Your task to perform on an android device: Open location settings Image 0: 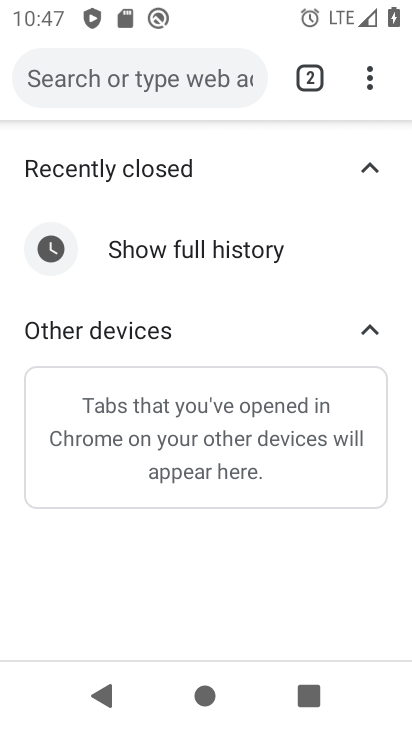
Step 0: press home button
Your task to perform on an android device: Open location settings Image 1: 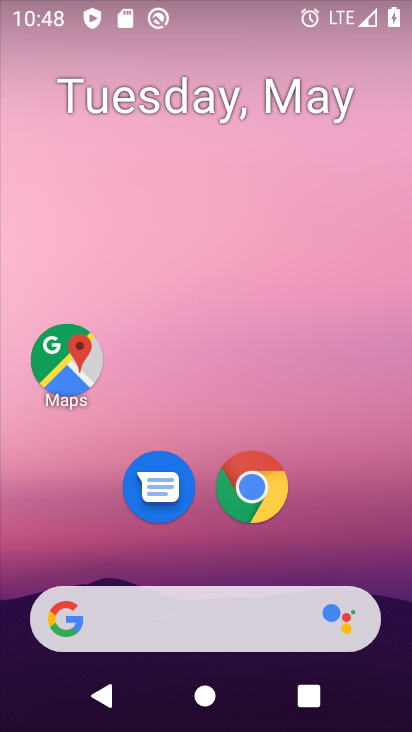
Step 1: drag from (199, 553) to (183, 11)
Your task to perform on an android device: Open location settings Image 2: 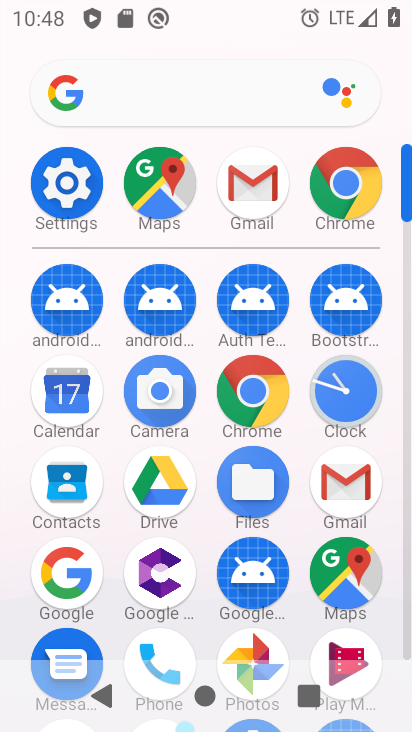
Step 2: click (76, 208)
Your task to perform on an android device: Open location settings Image 3: 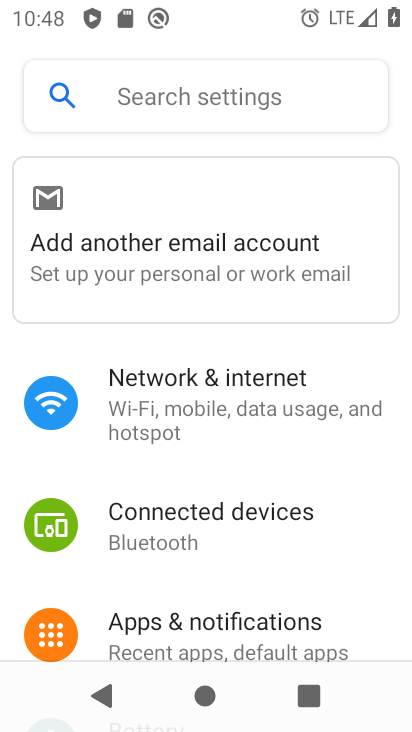
Step 3: drag from (246, 559) to (286, 72)
Your task to perform on an android device: Open location settings Image 4: 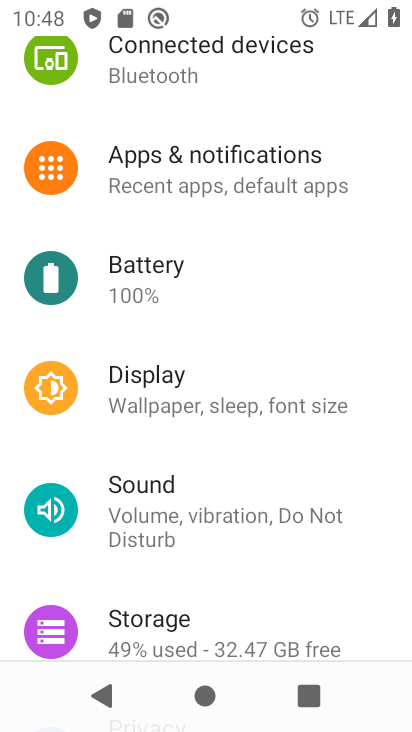
Step 4: drag from (203, 581) to (146, 31)
Your task to perform on an android device: Open location settings Image 5: 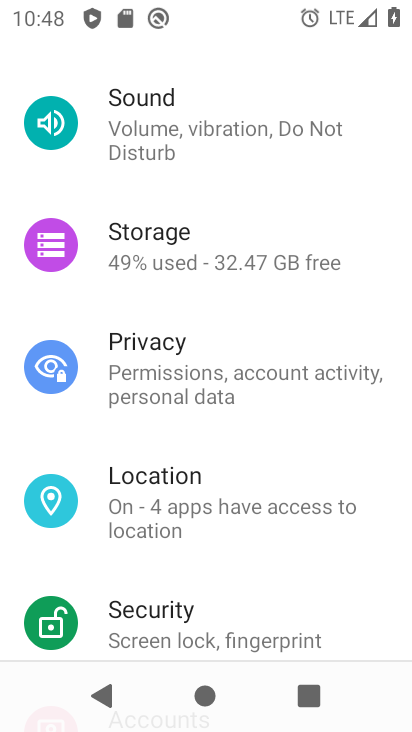
Step 5: click (206, 489)
Your task to perform on an android device: Open location settings Image 6: 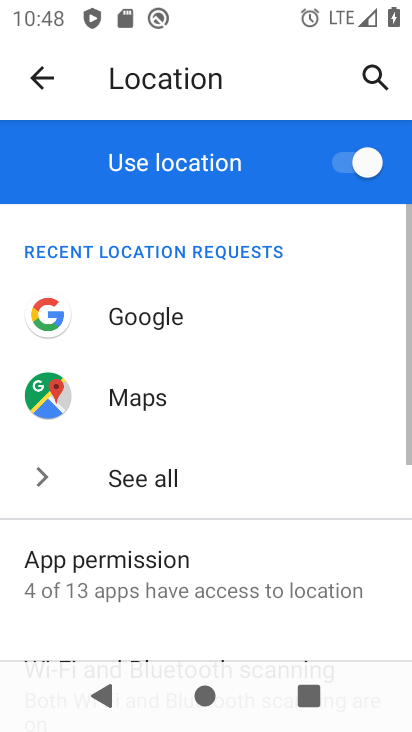
Step 6: task complete